Your task to perform on an android device: Open my contact list Image 0: 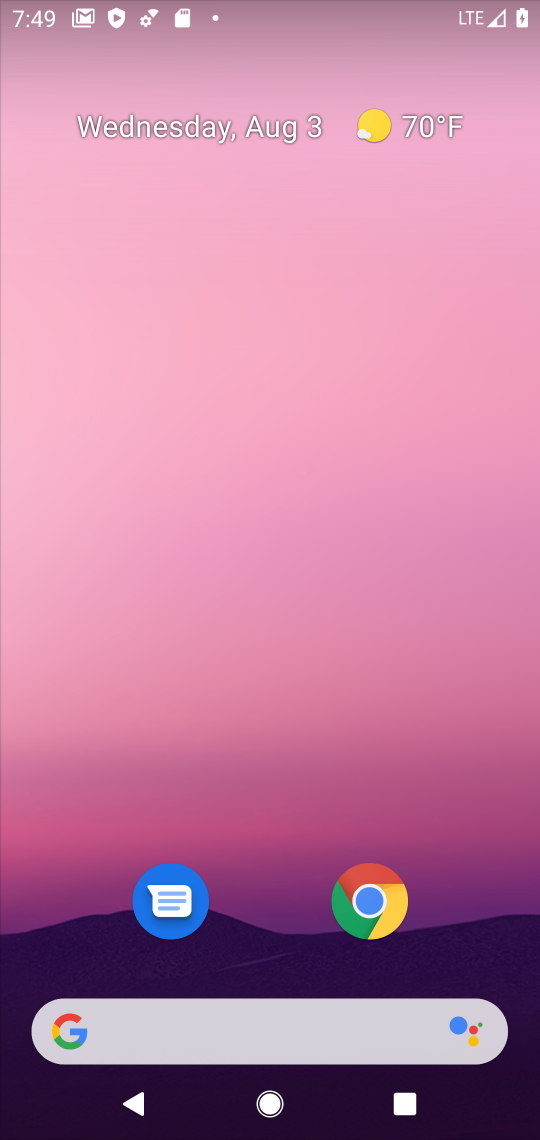
Step 0: drag from (512, 901) to (423, 332)
Your task to perform on an android device: Open my contact list Image 1: 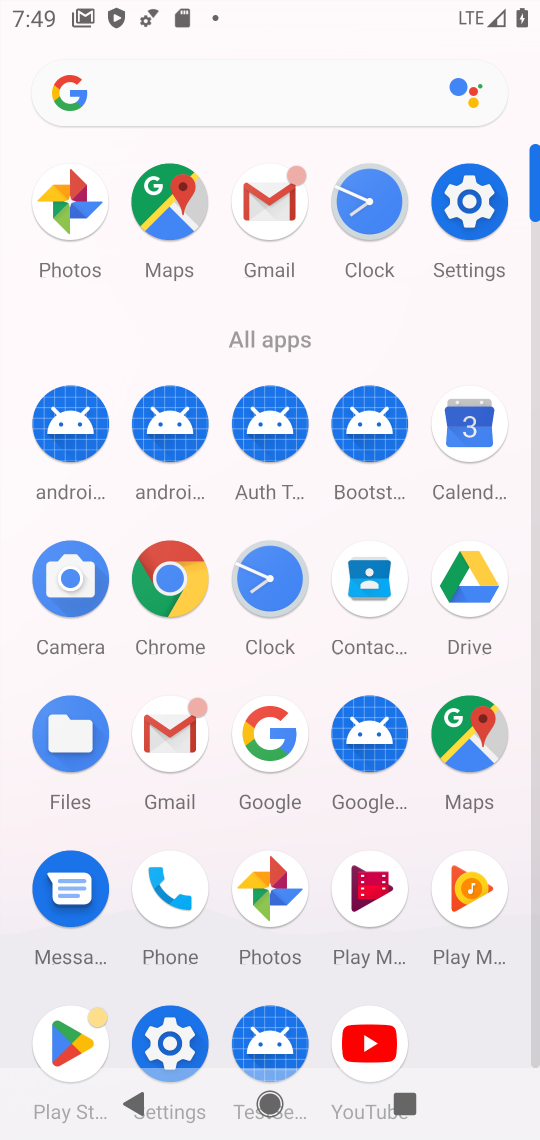
Step 1: click (368, 584)
Your task to perform on an android device: Open my contact list Image 2: 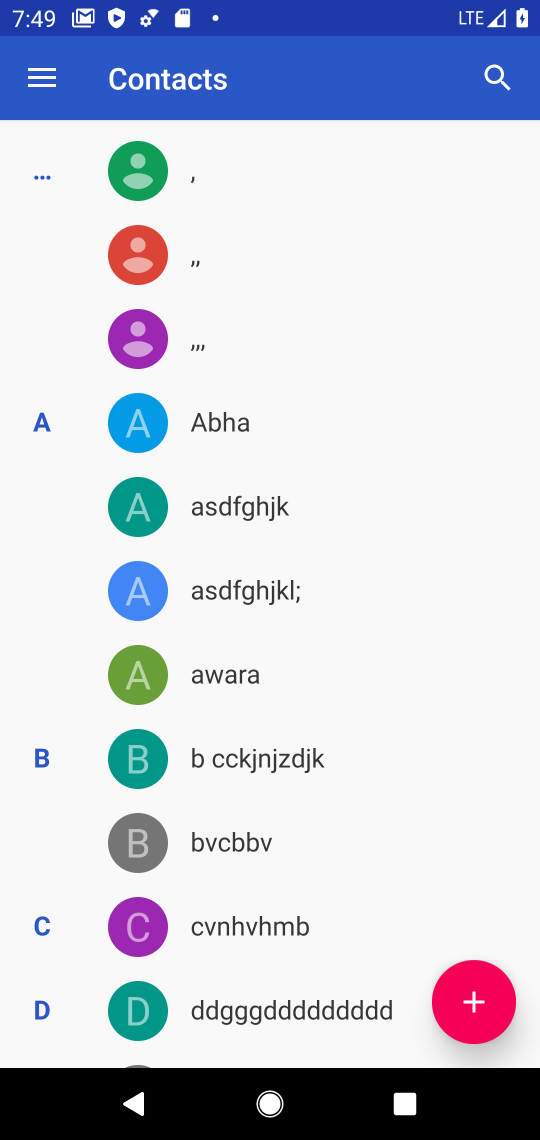
Step 2: task complete